Your task to perform on an android device: change the clock style Image 0: 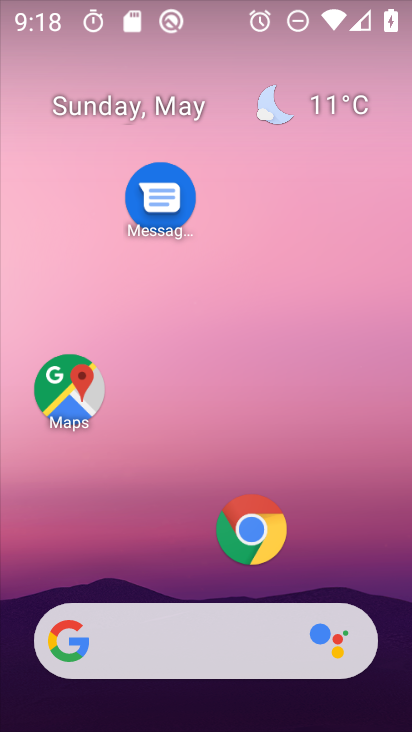
Step 0: drag from (200, 580) to (222, 125)
Your task to perform on an android device: change the clock style Image 1: 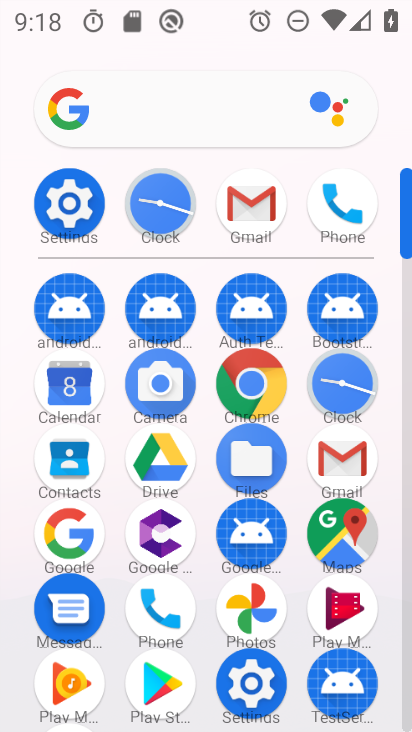
Step 1: click (339, 376)
Your task to perform on an android device: change the clock style Image 2: 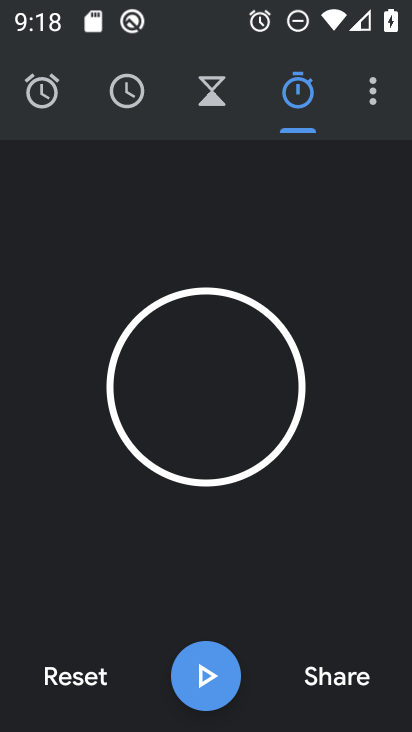
Step 2: click (364, 86)
Your task to perform on an android device: change the clock style Image 3: 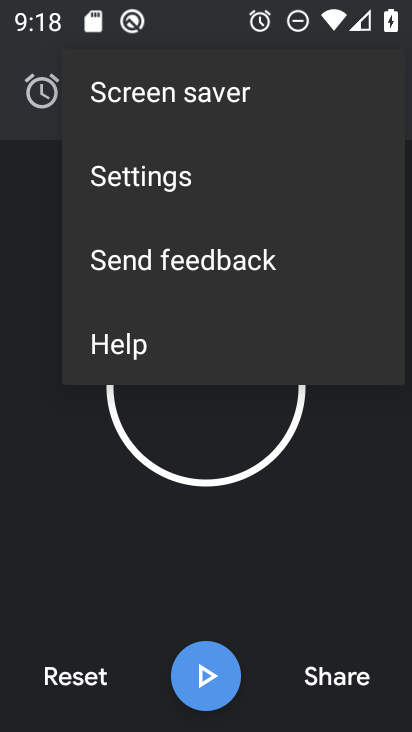
Step 3: click (200, 179)
Your task to perform on an android device: change the clock style Image 4: 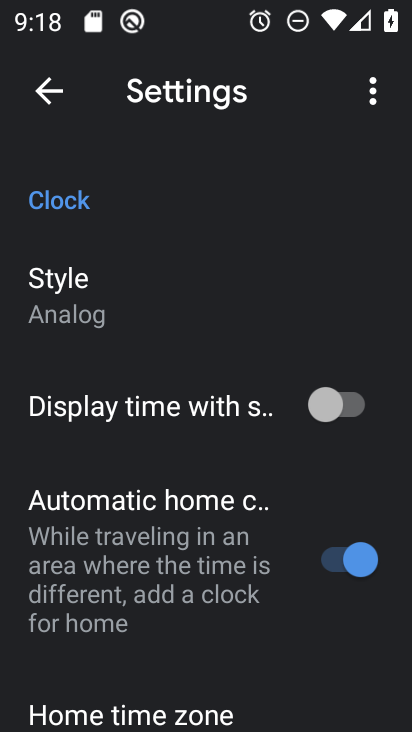
Step 4: click (111, 311)
Your task to perform on an android device: change the clock style Image 5: 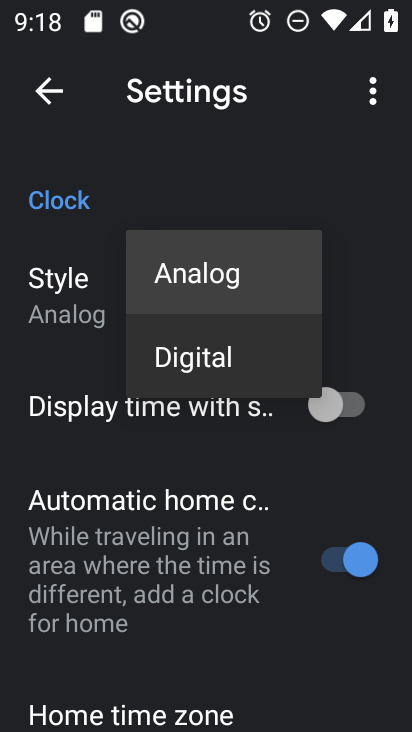
Step 5: click (216, 348)
Your task to perform on an android device: change the clock style Image 6: 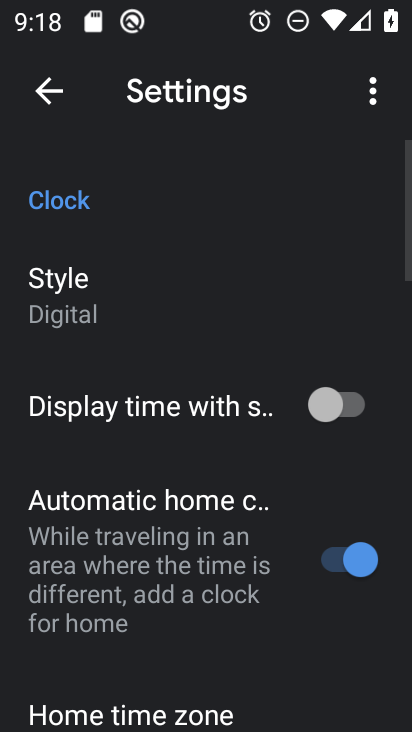
Step 6: task complete